Your task to perform on an android device: turn off location Image 0: 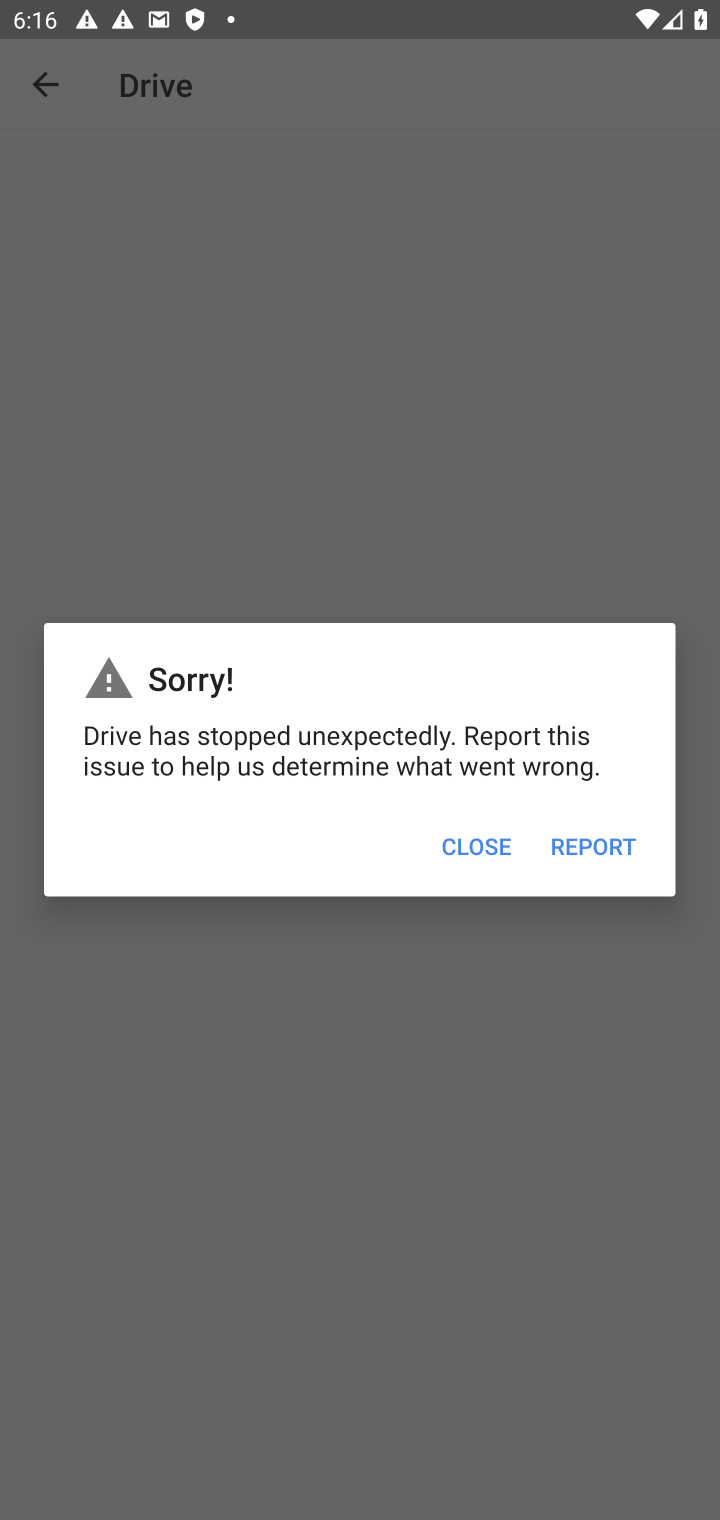
Step 0: press back button
Your task to perform on an android device: turn off location Image 1: 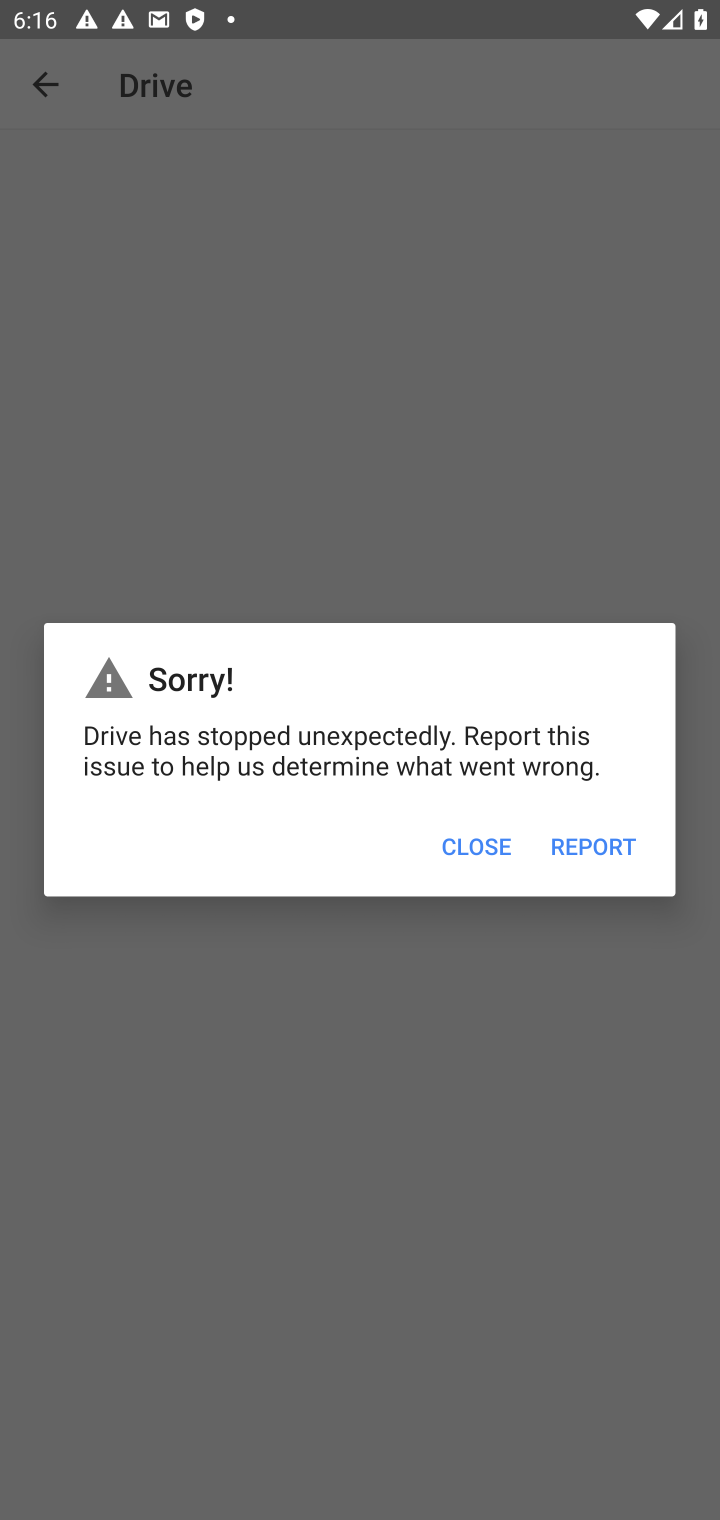
Step 1: press home button
Your task to perform on an android device: turn off location Image 2: 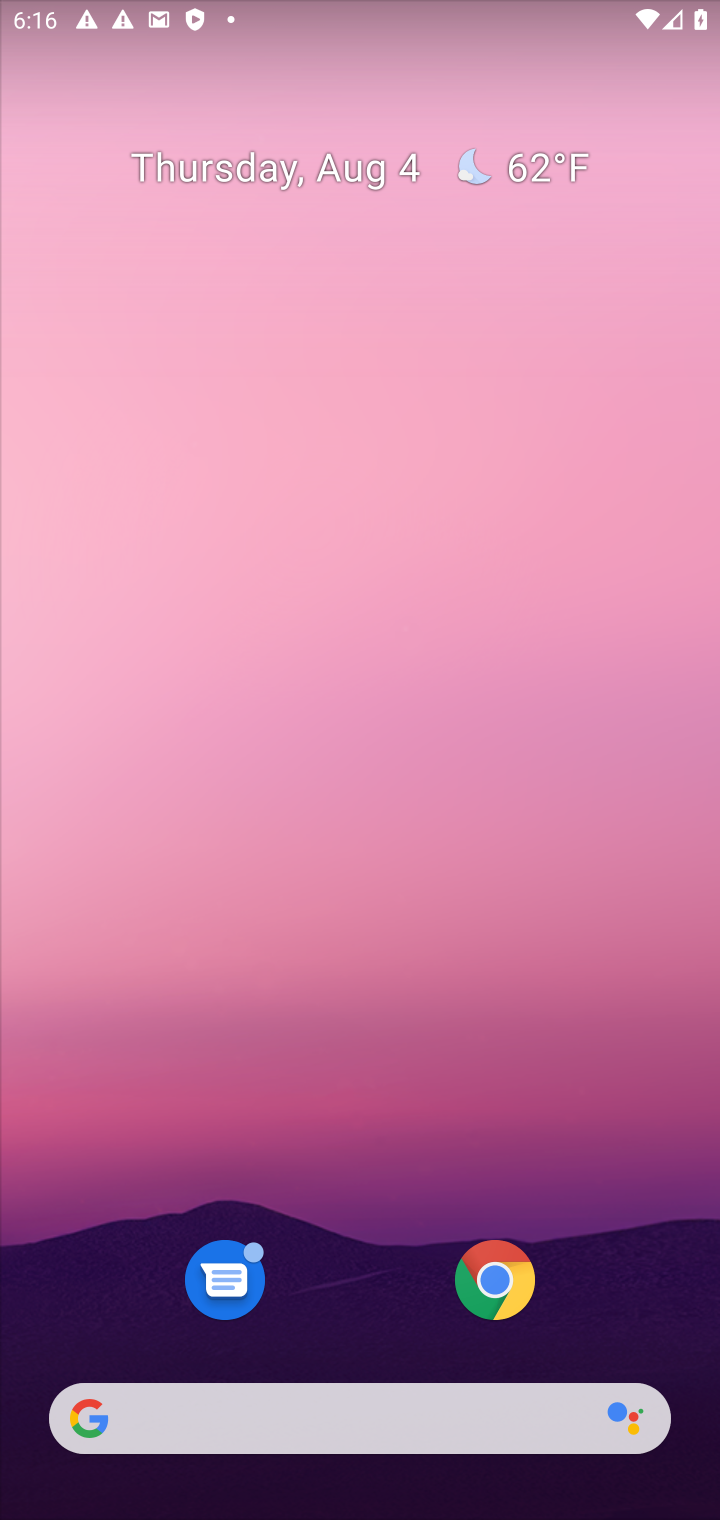
Step 2: click (335, 653)
Your task to perform on an android device: turn off location Image 3: 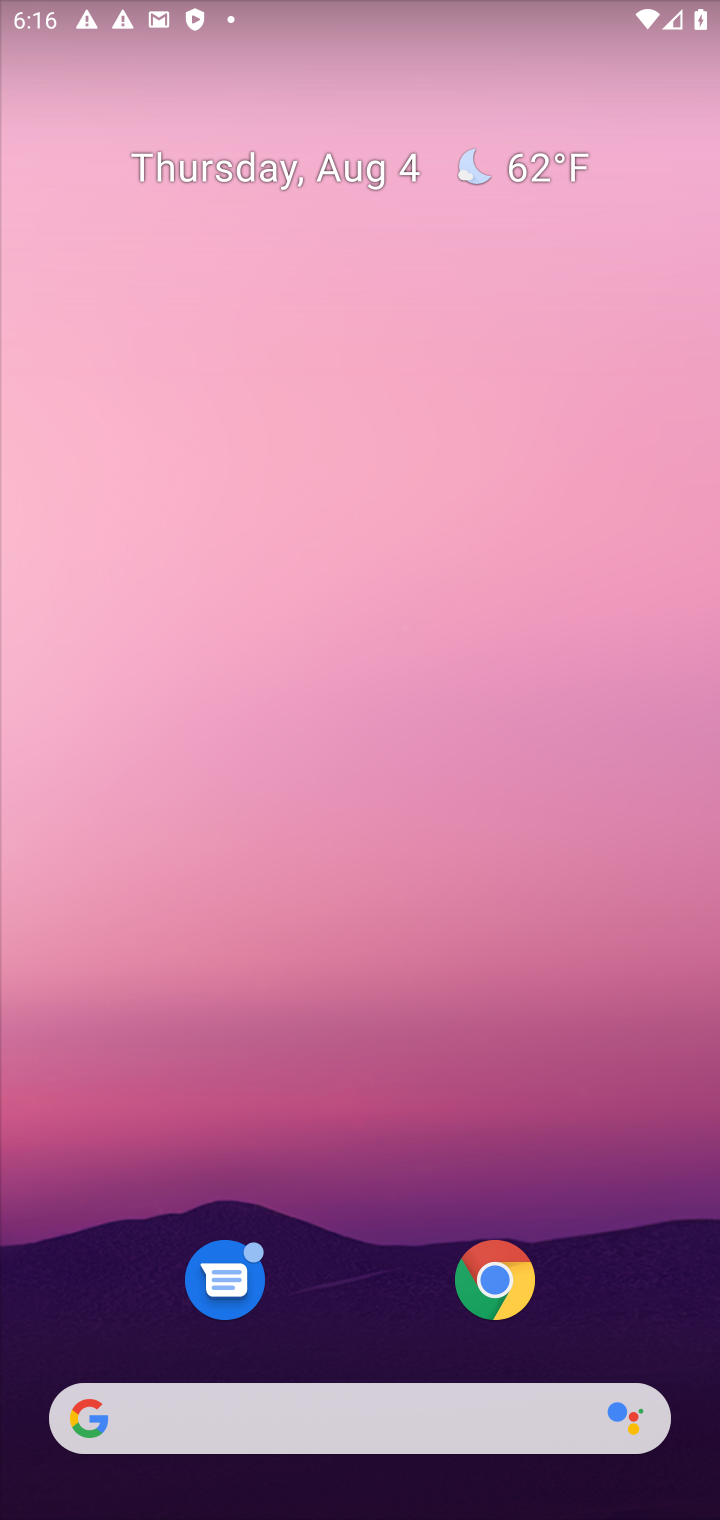
Step 3: drag from (343, 510) to (371, 394)
Your task to perform on an android device: turn off location Image 4: 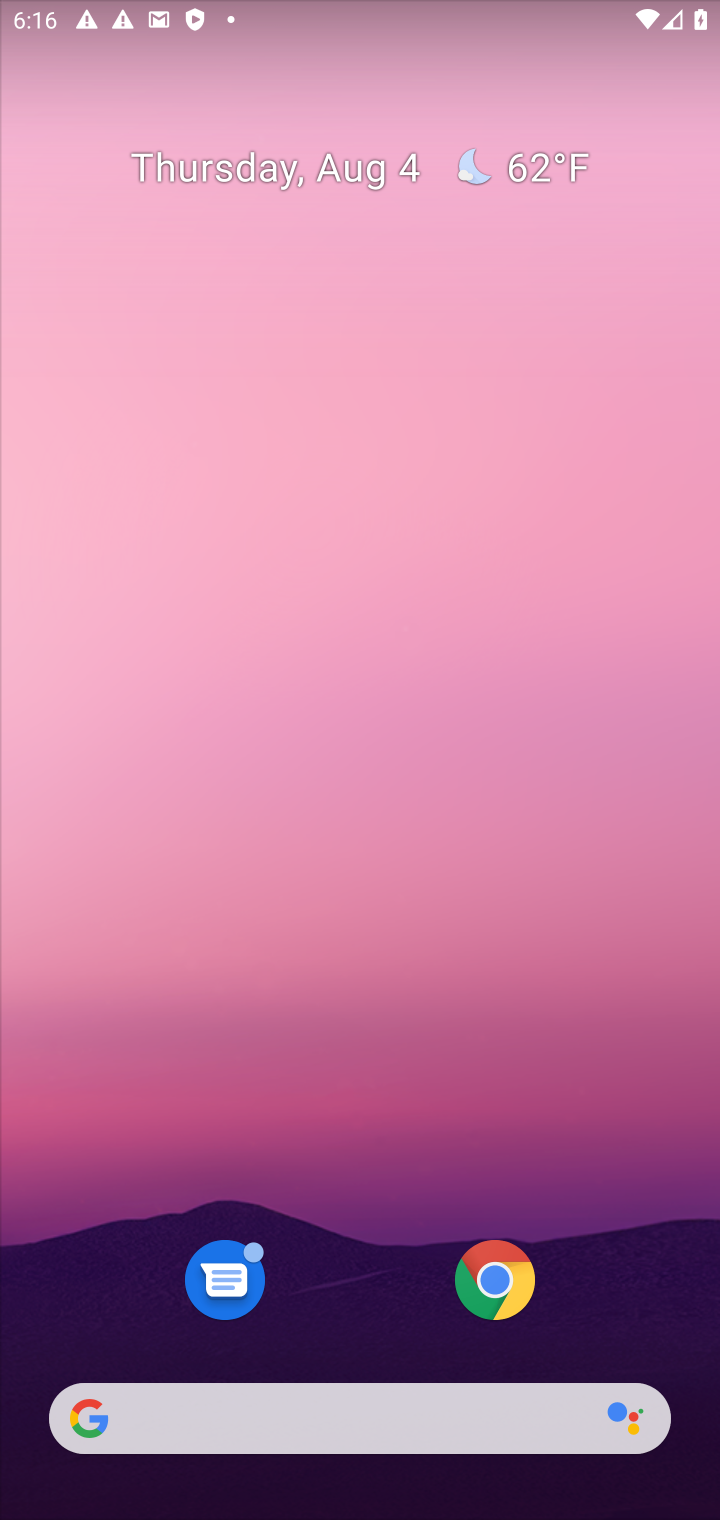
Step 4: click (261, 466)
Your task to perform on an android device: turn off location Image 5: 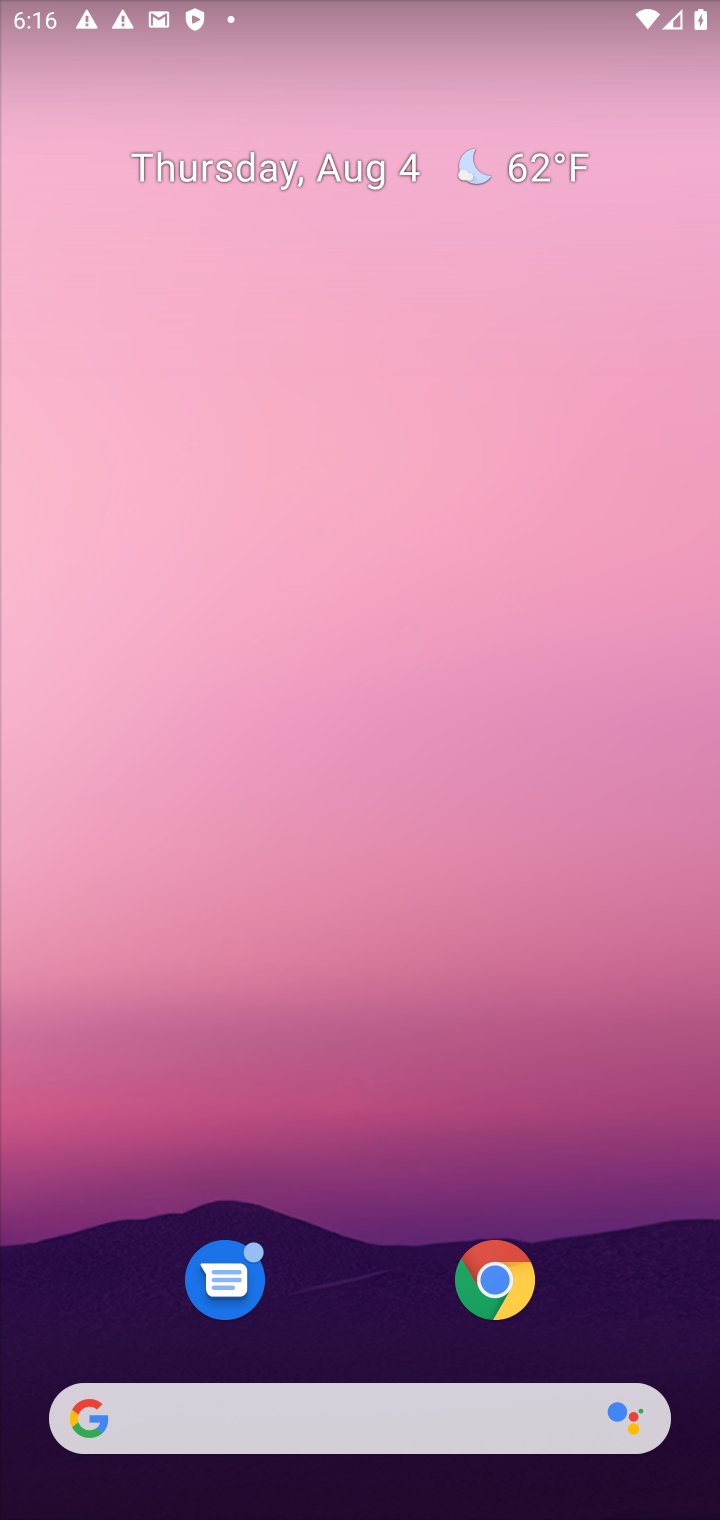
Step 5: drag from (314, 211) to (314, 81)
Your task to perform on an android device: turn off location Image 6: 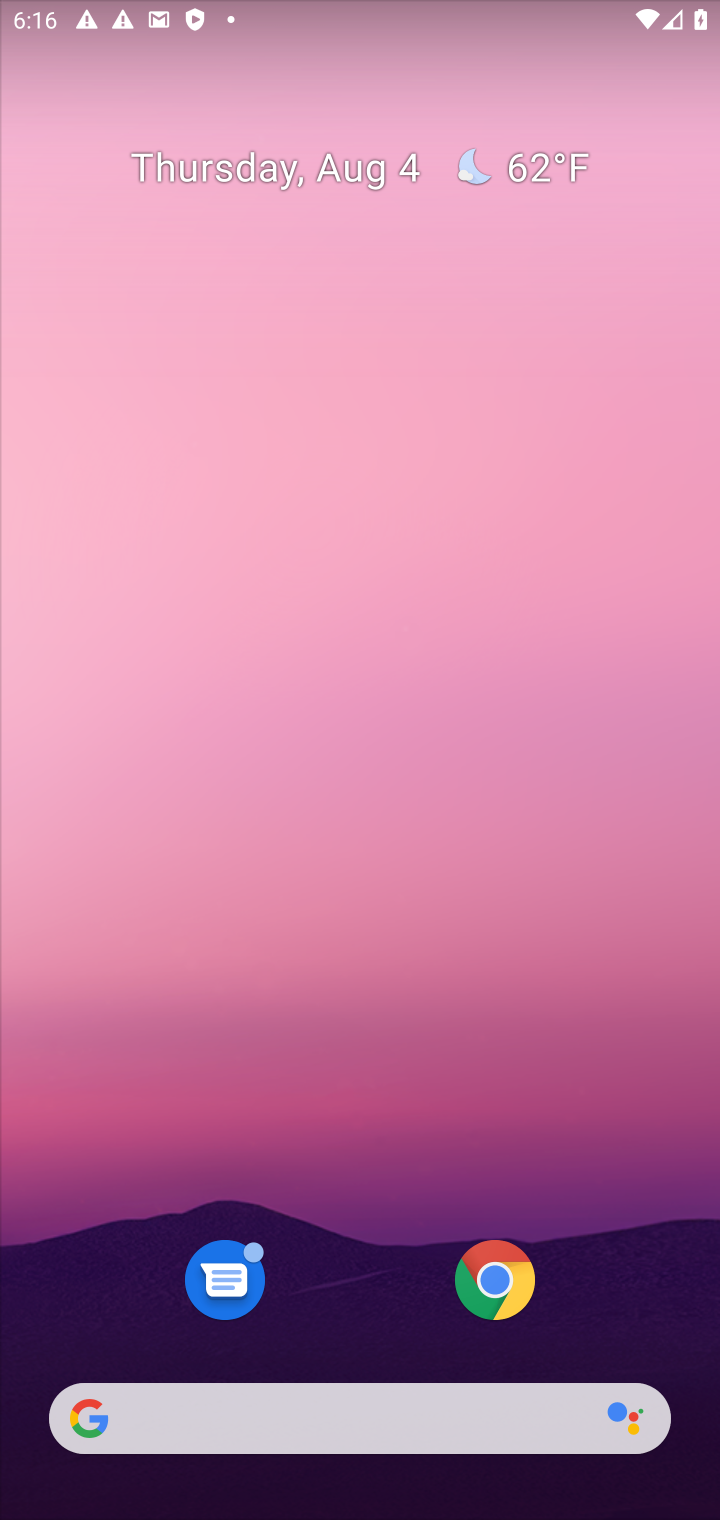
Step 6: drag from (366, 435) to (366, 300)
Your task to perform on an android device: turn off location Image 7: 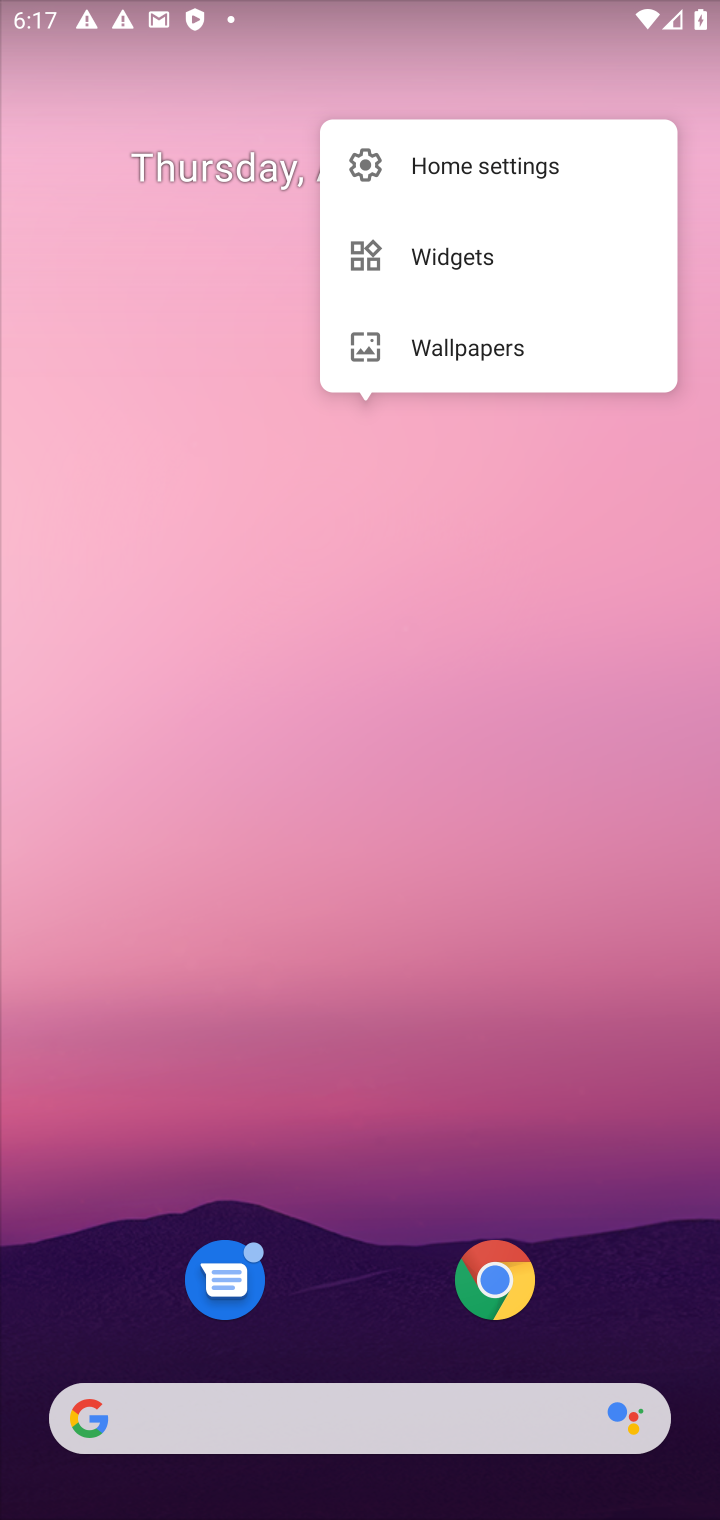
Step 7: click (279, 864)
Your task to perform on an android device: turn off location Image 8: 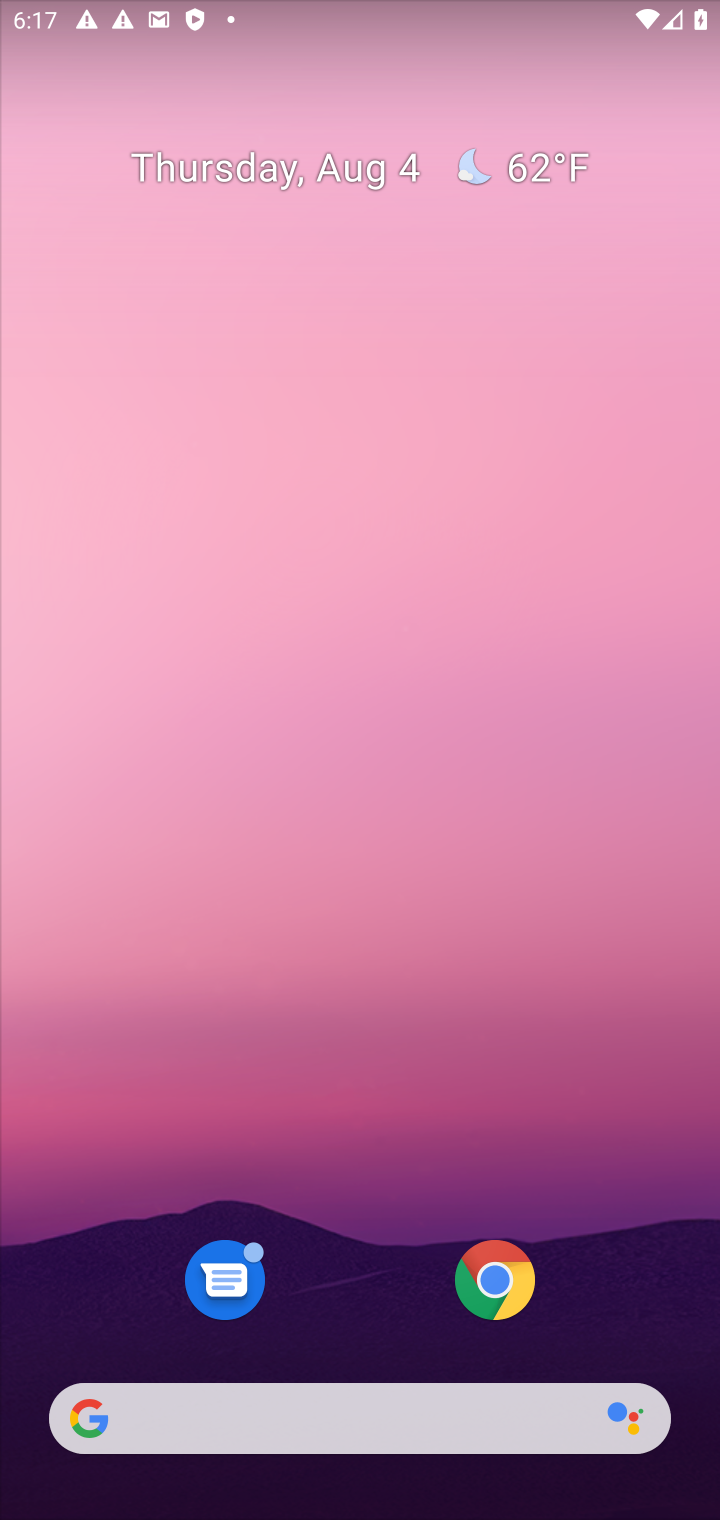
Step 8: drag from (342, 284) to (301, 57)
Your task to perform on an android device: turn off location Image 9: 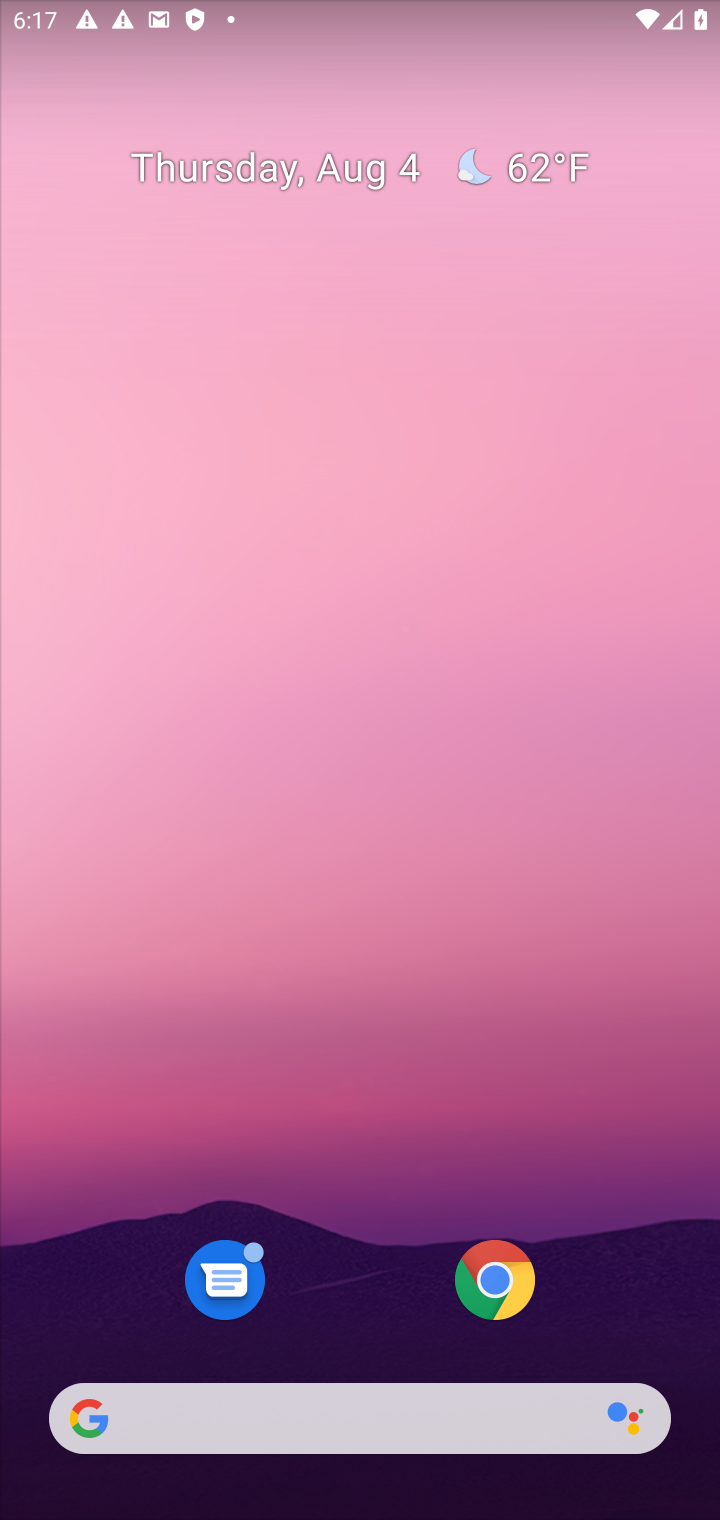
Step 9: drag from (364, 487) to (230, 20)
Your task to perform on an android device: turn off location Image 10: 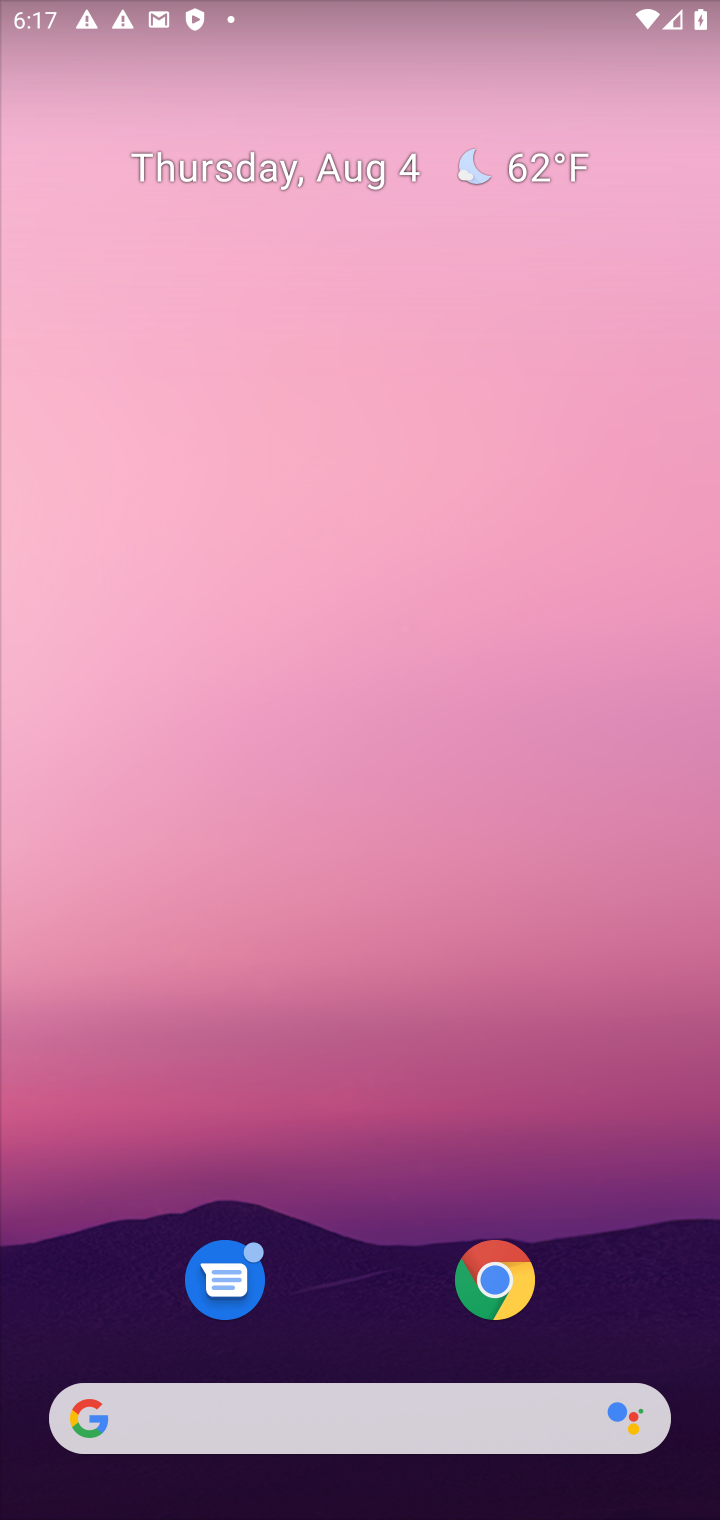
Step 10: drag from (347, 1258) to (346, 81)
Your task to perform on an android device: turn off location Image 11: 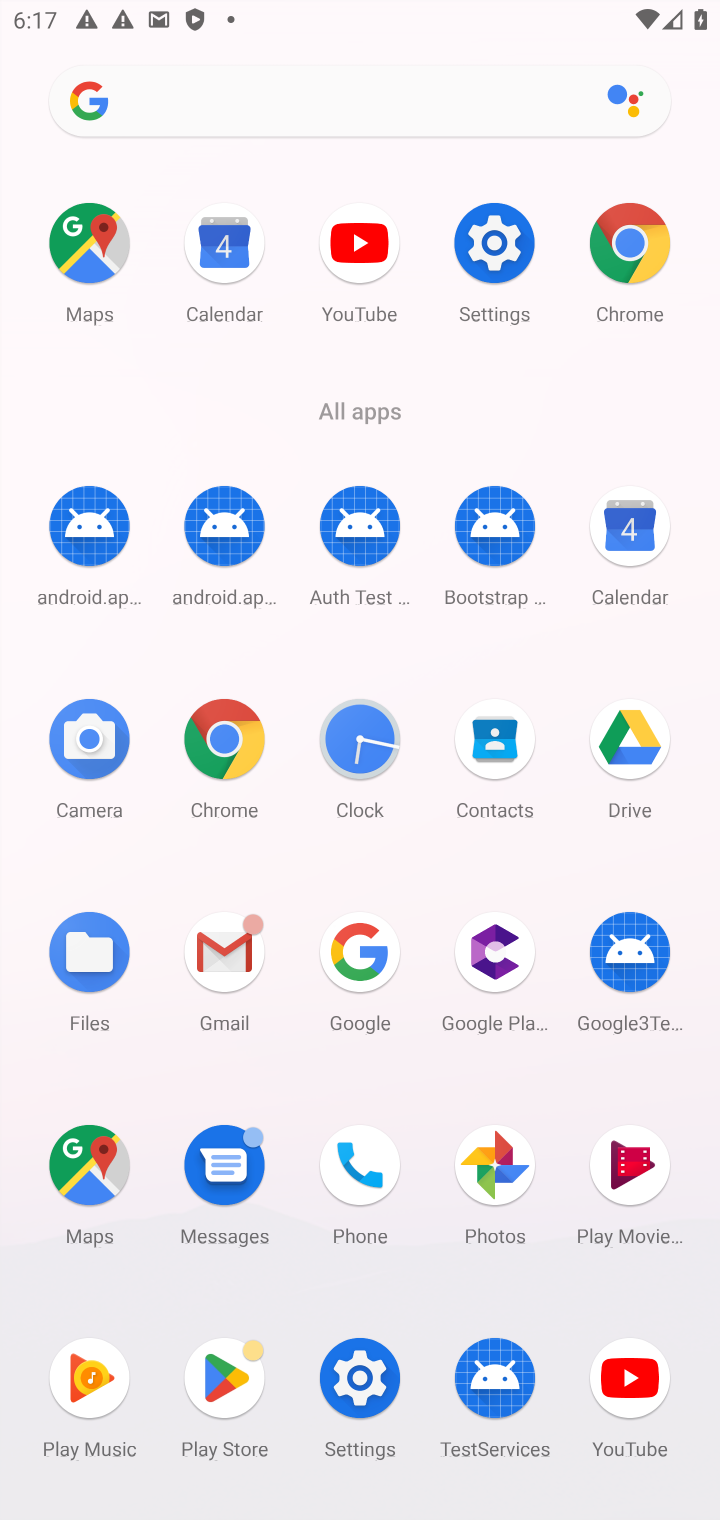
Step 11: click (358, 1381)
Your task to perform on an android device: turn off location Image 12: 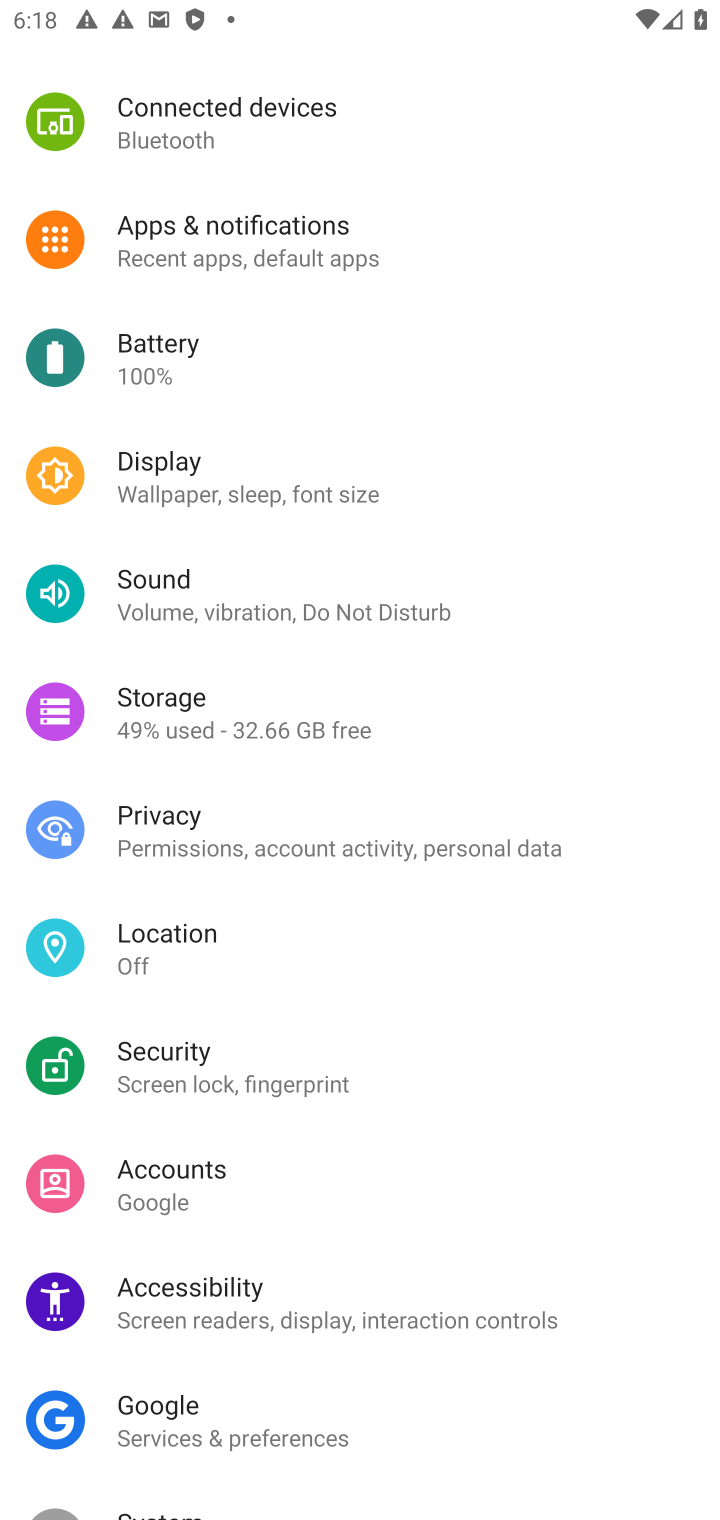
Step 12: click (134, 986)
Your task to perform on an android device: turn off location Image 13: 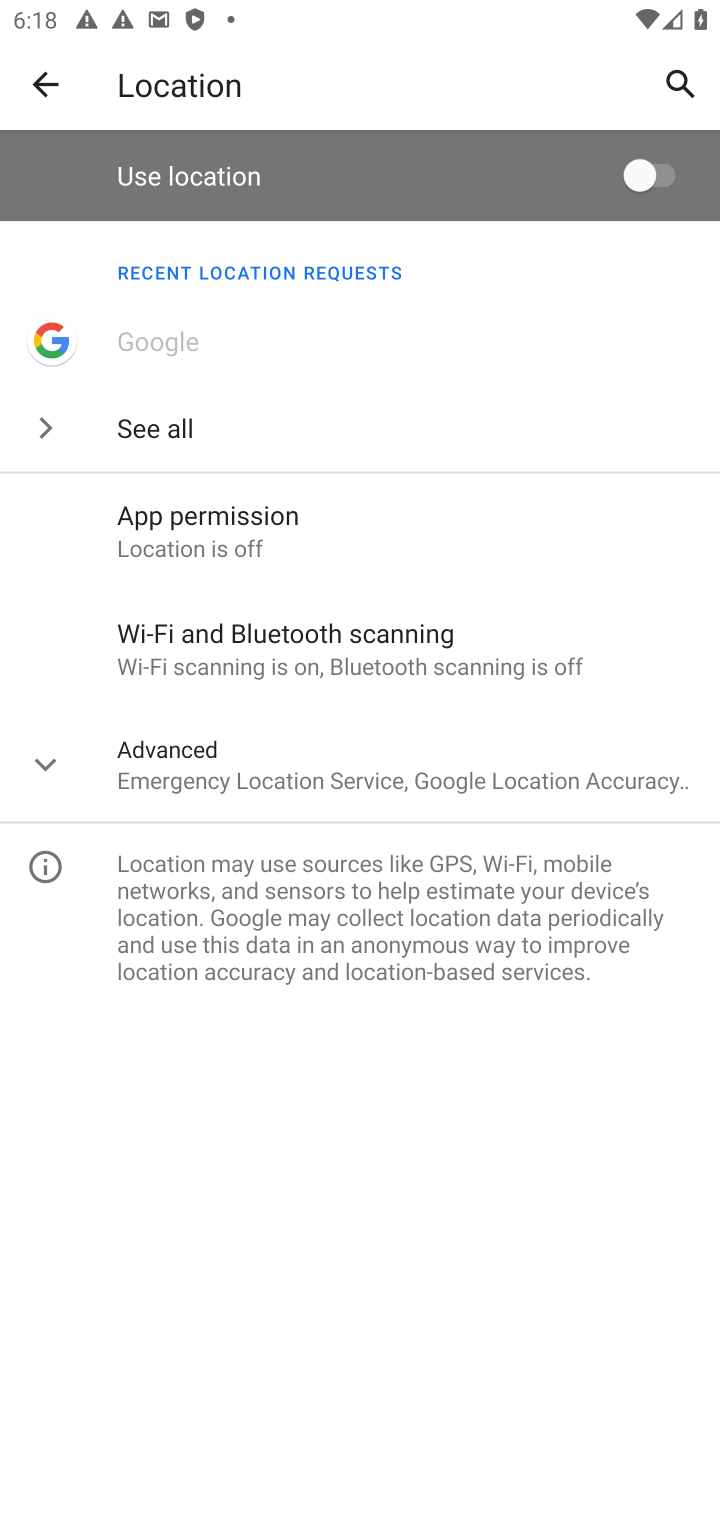
Step 13: task complete